Your task to perform on an android device: uninstall "Google News" Image 0: 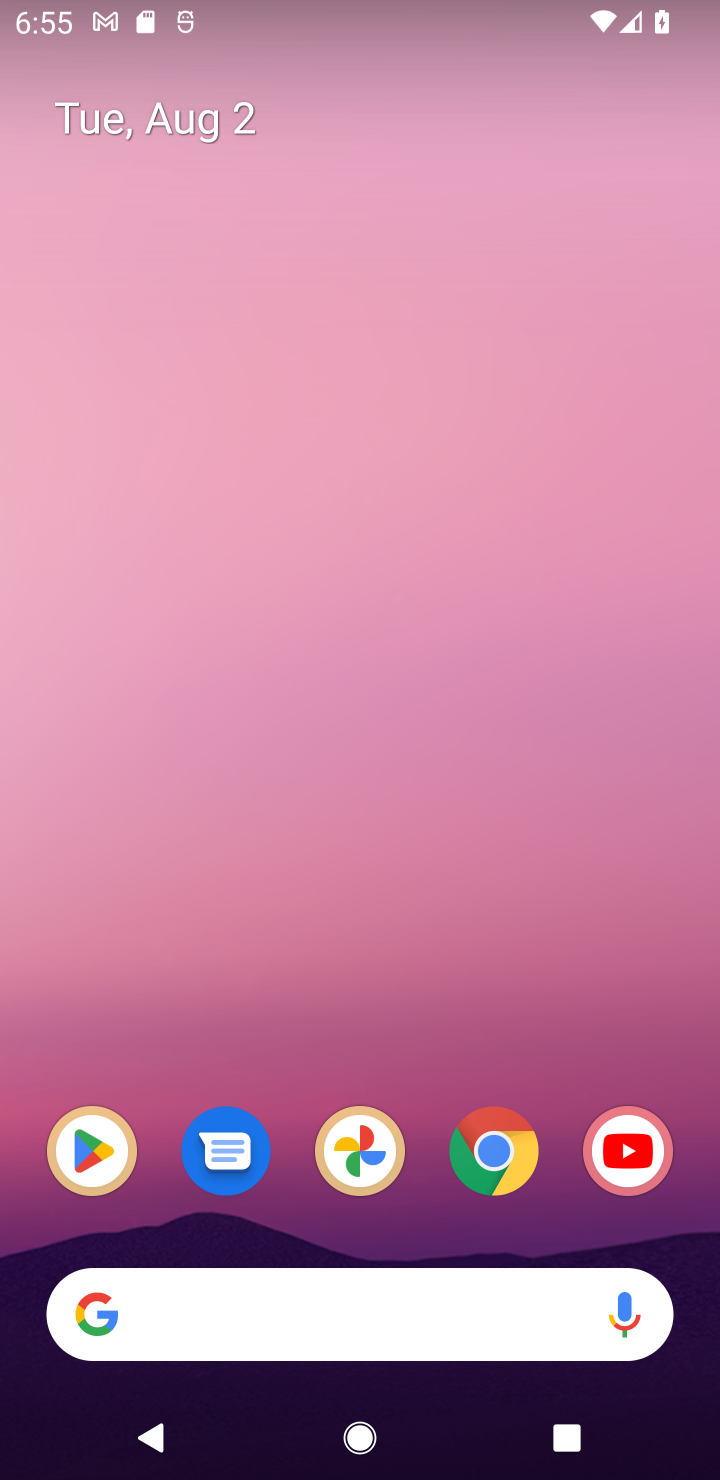
Step 0: click (109, 1126)
Your task to perform on an android device: uninstall "Google News" Image 1: 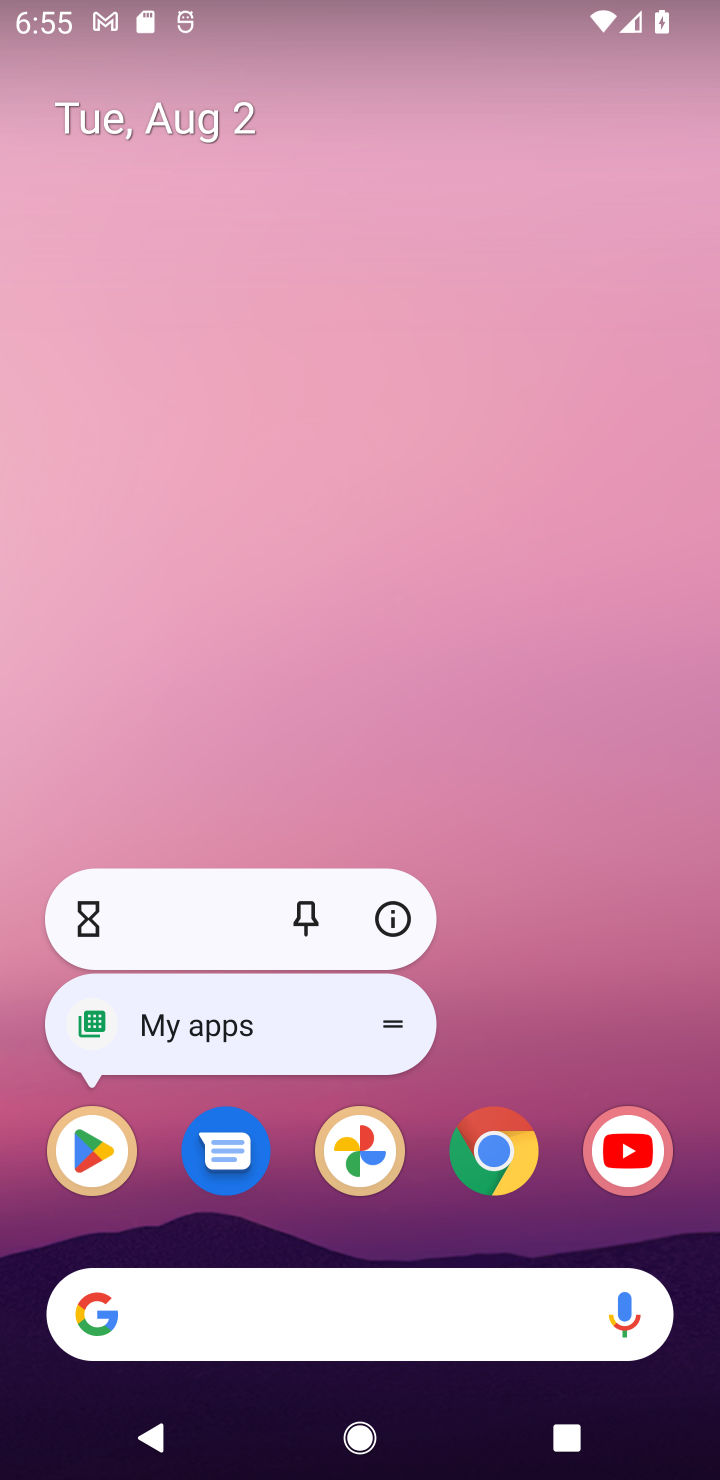
Step 1: click (109, 1126)
Your task to perform on an android device: uninstall "Google News" Image 2: 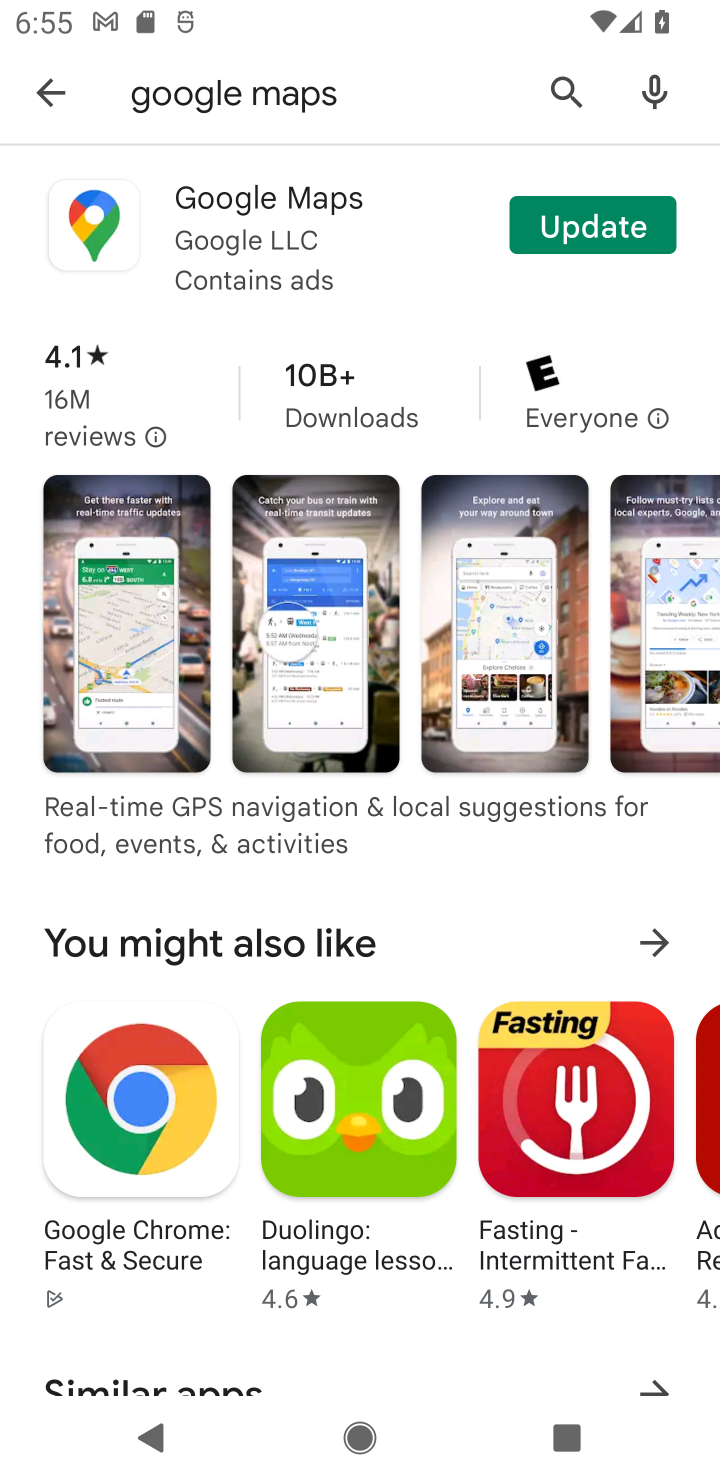
Step 2: click (561, 89)
Your task to perform on an android device: uninstall "Google News" Image 3: 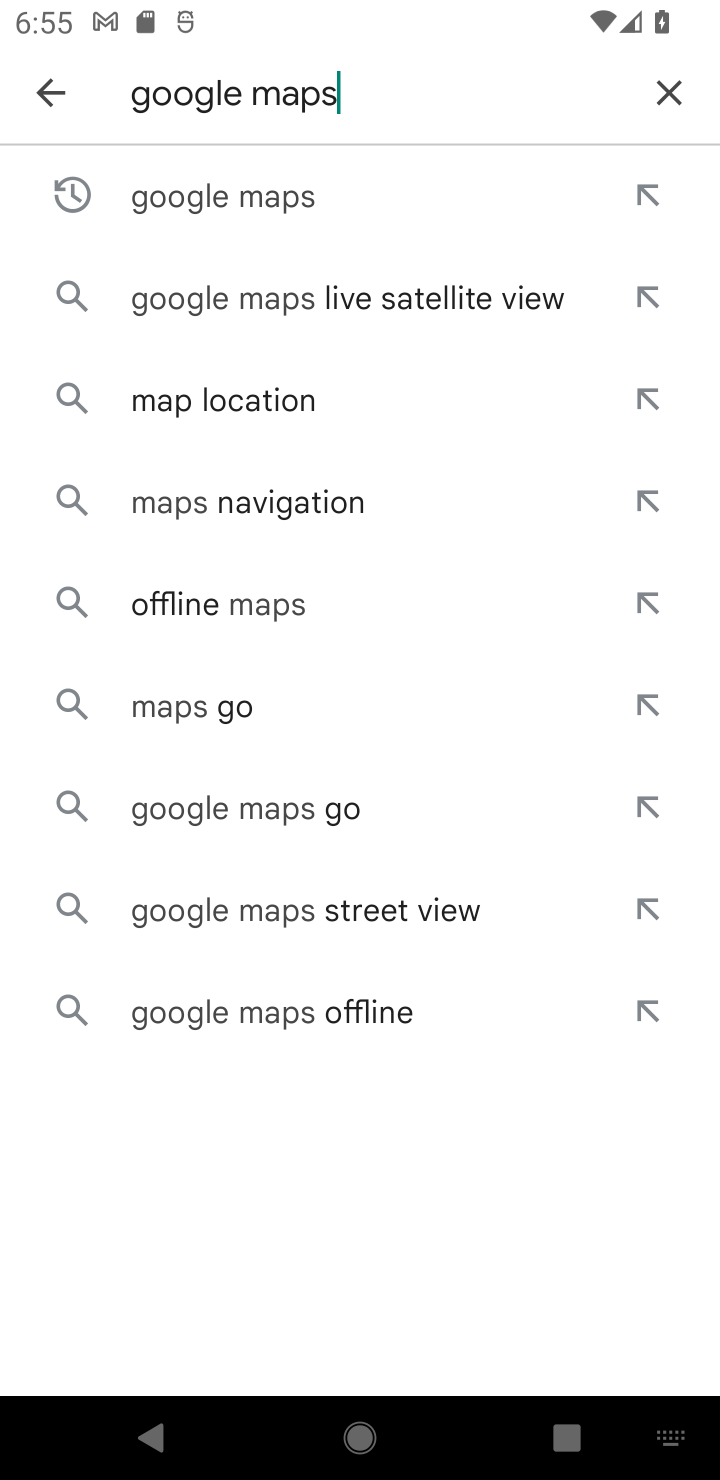
Step 3: click (677, 92)
Your task to perform on an android device: uninstall "Google News" Image 4: 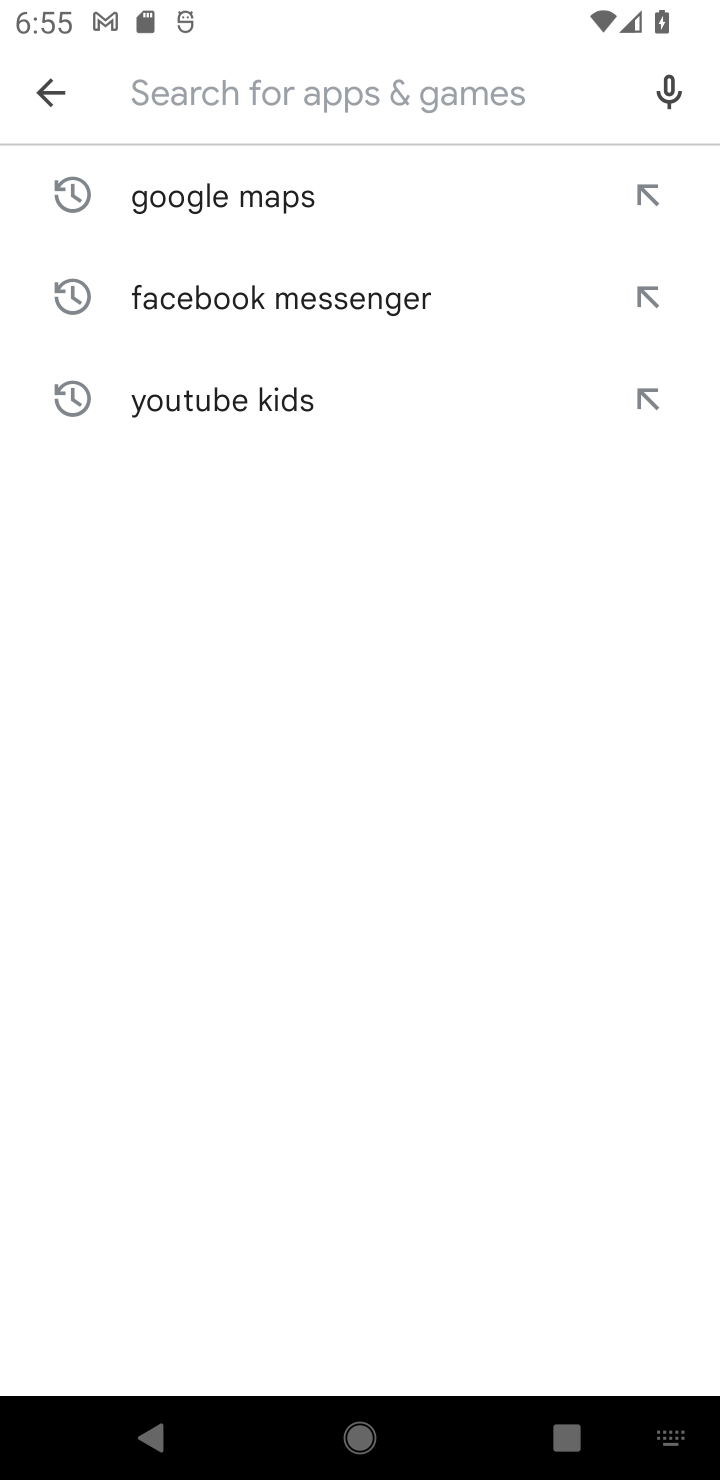
Step 4: type "Google News"
Your task to perform on an android device: uninstall "Google News" Image 5: 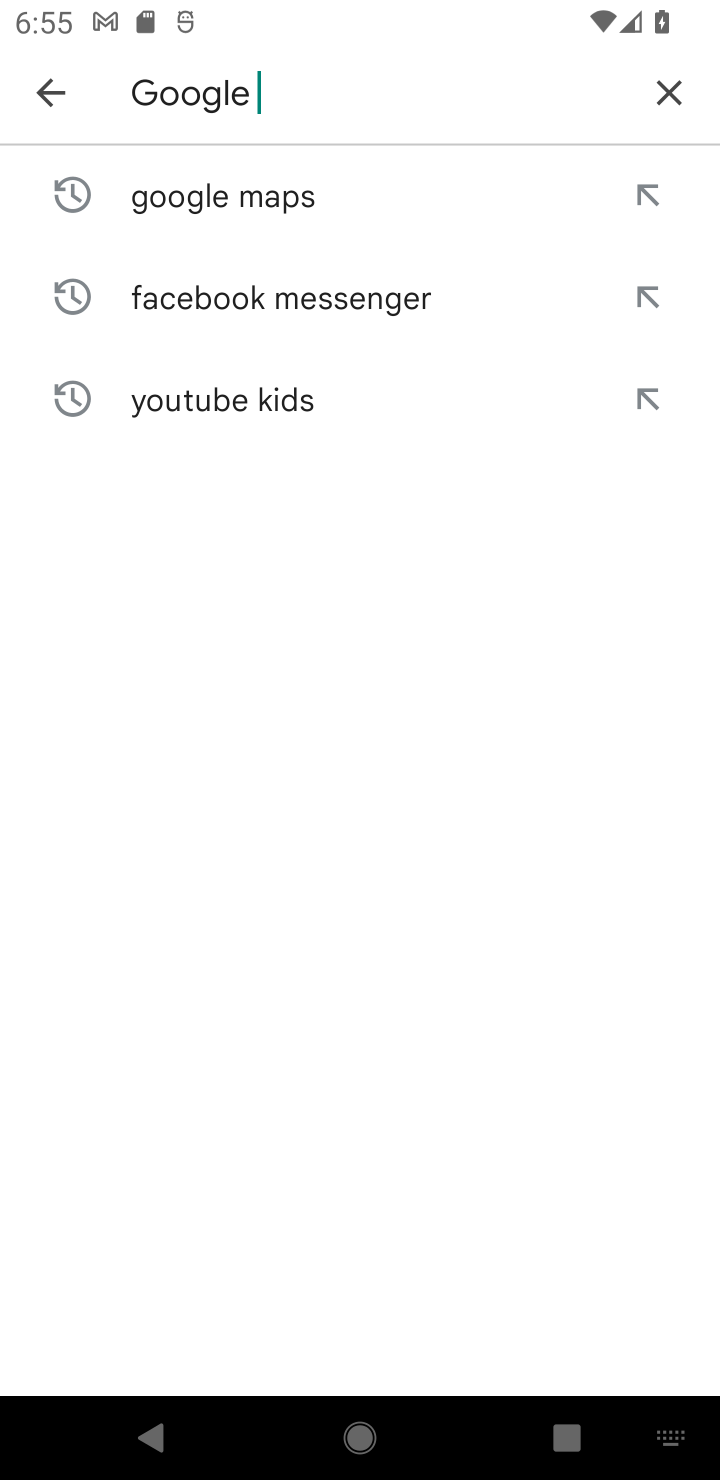
Step 5: type ""
Your task to perform on an android device: uninstall "Google News" Image 6: 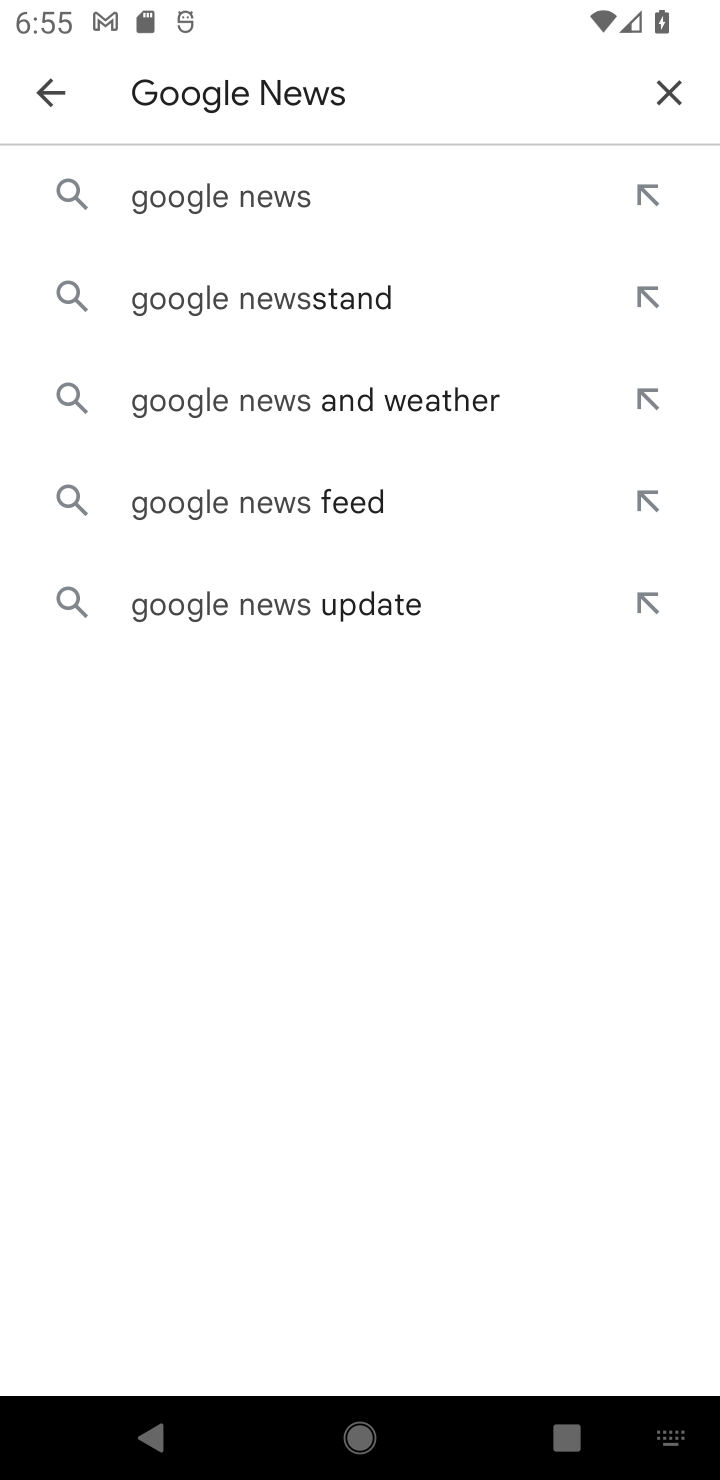
Step 6: click (298, 204)
Your task to perform on an android device: uninstall "Google News" Image 7: 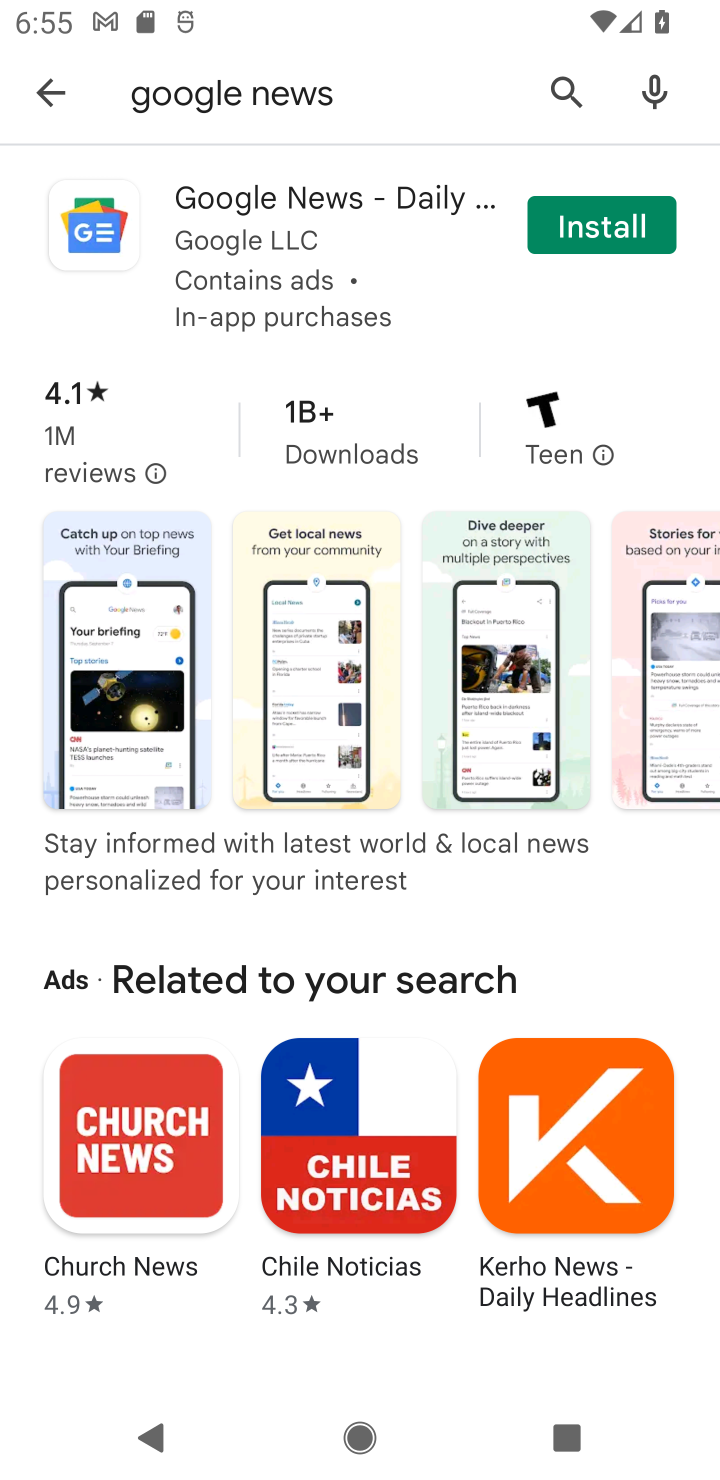
Step 7: task complete